Your task to perform on an android device: turn on location history Image 0: 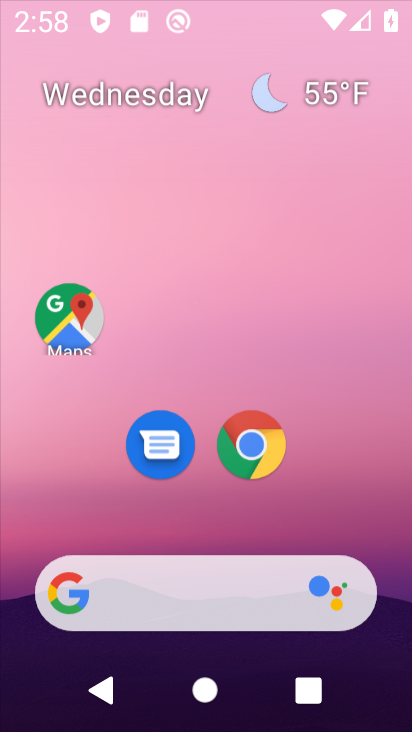
Step 0: click (57, 343)
Your task to perform on an android device: turn on location history Image 1: 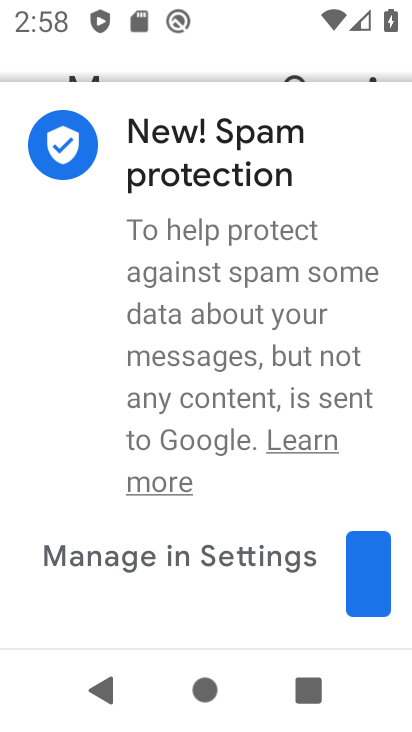
Step 1: press back button
Your task to perform on an android device: turn on location history Image 2: 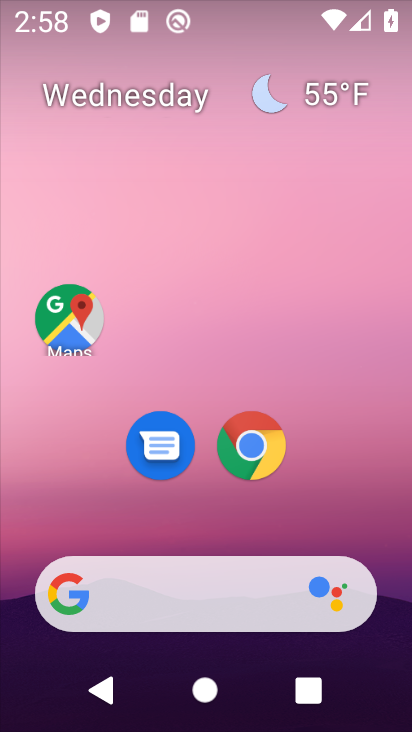
Step 2: click (98, 302)
Your task to perform on an android device: turn on location history Image 3: 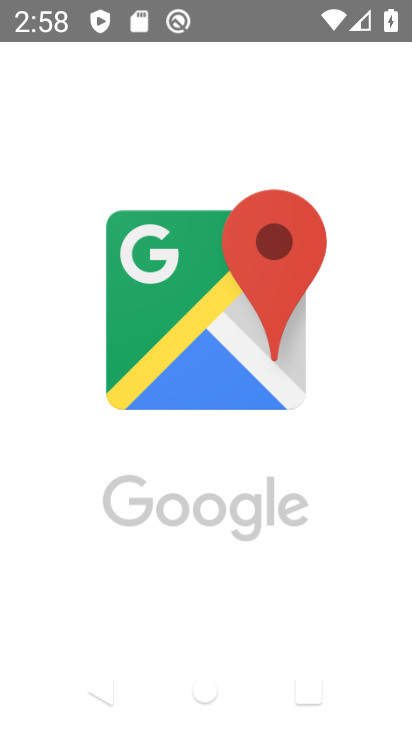
Step 3: press home button
Your task to perform on an android device: turn on location history Image 4: 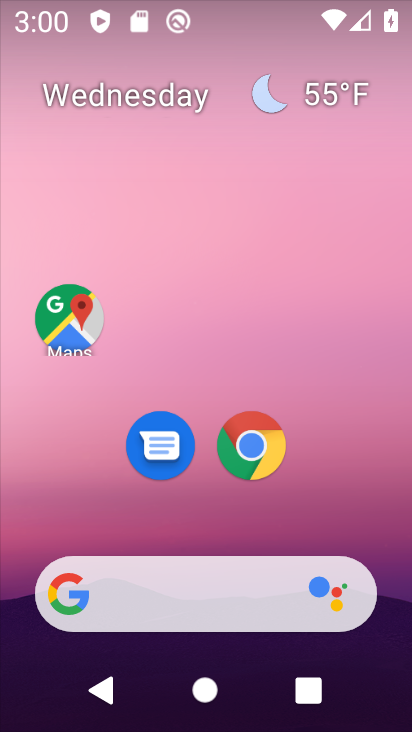
Step 4: drag from (162, 506) to (173, 380)
Your task to perform on an android device: turn on location history Image 5: 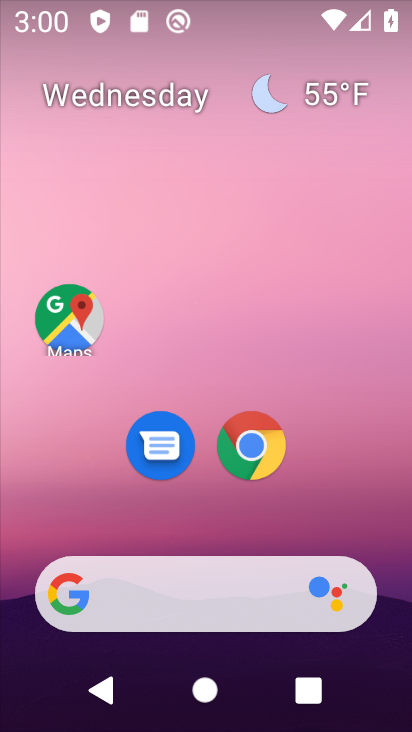
Step 5: drag from (287, 637) to (386, 223)
Your task to perform on an android device: turn on location history Image 6: 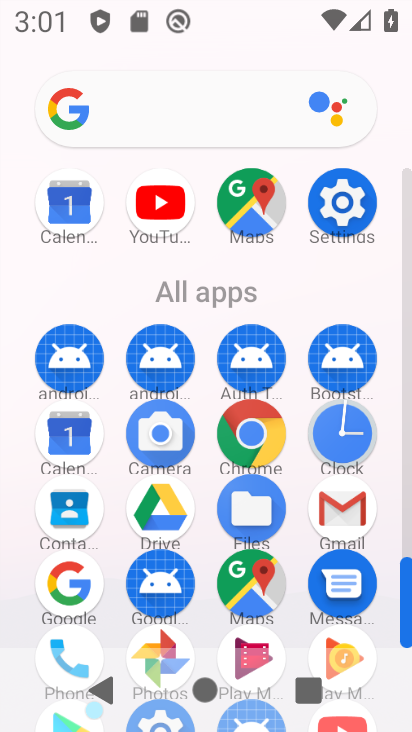
Step 6: click (332, 213)
Your task to perform on an android device: turn on location history Image 7: 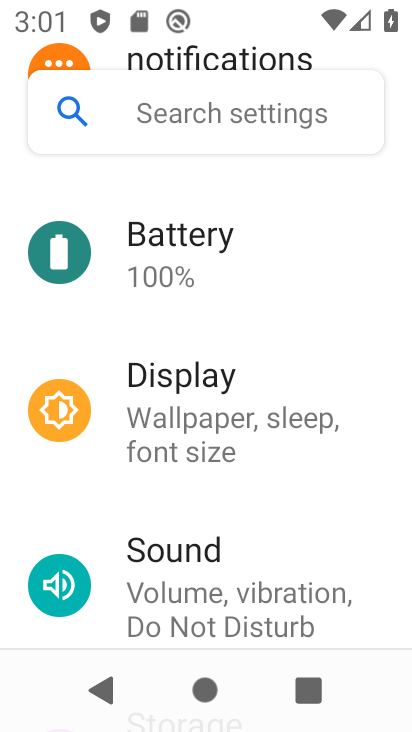
Step 7: drag from (202, 372) to (231, 64)
Your task to perform on an android device: turn on location history Image 8: 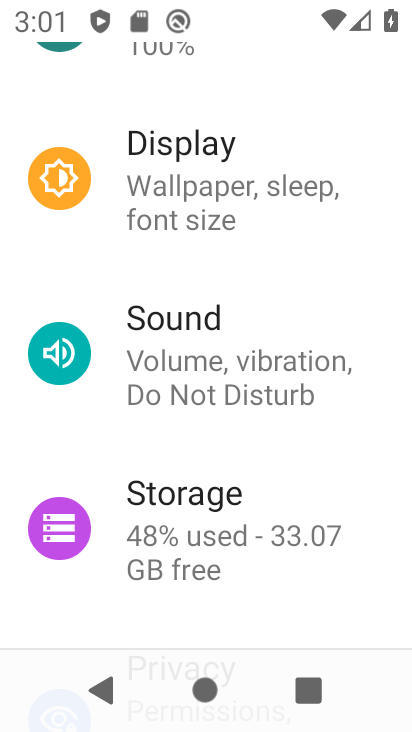
Step 8: drag from (288, 445) to (312, 199)
Your task to perform on an android device: turn on location history Image 9: 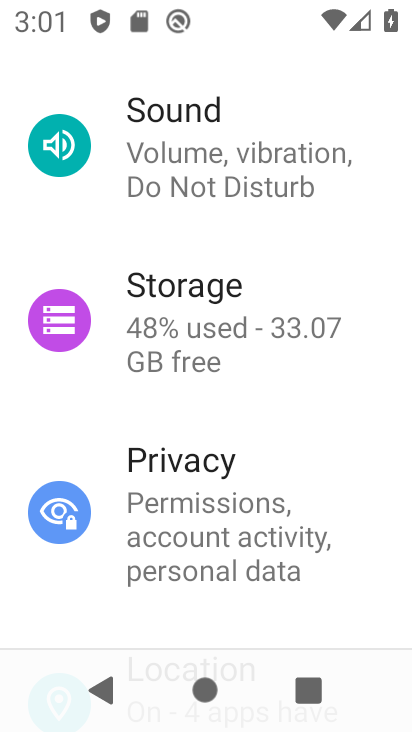
Step 9: drag from (339, 454) to (356, 272)
Your task to perform on an android device: turn on location history Image 10: 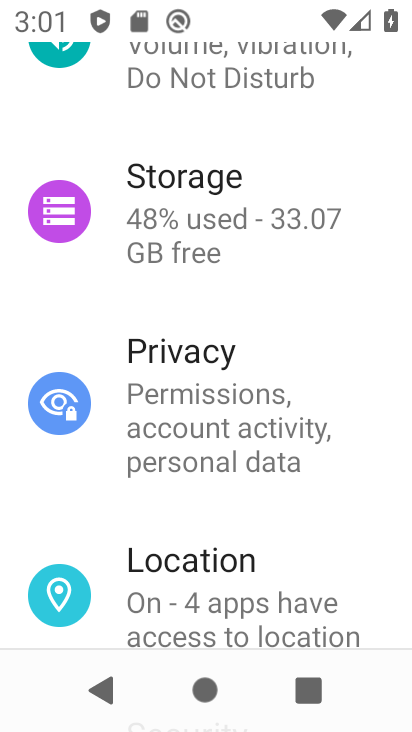
Step 10: click (166, 592)
Your task to perform on an android device: turn on location history Image 11: 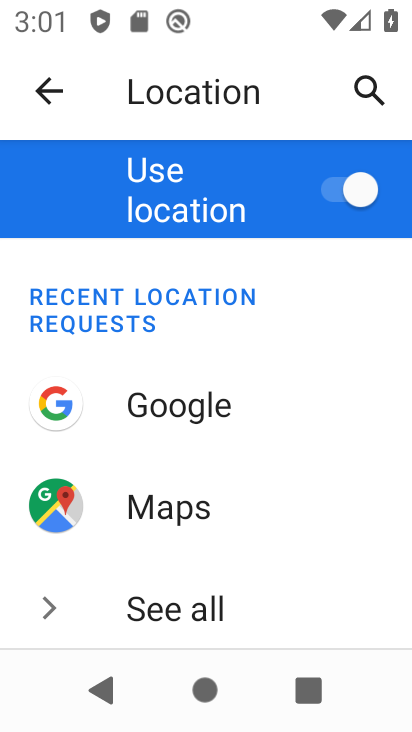
Step 11: drag from (328, 500) to (372, 150)
Your task to perform on an android device: turn on location history Image 12: 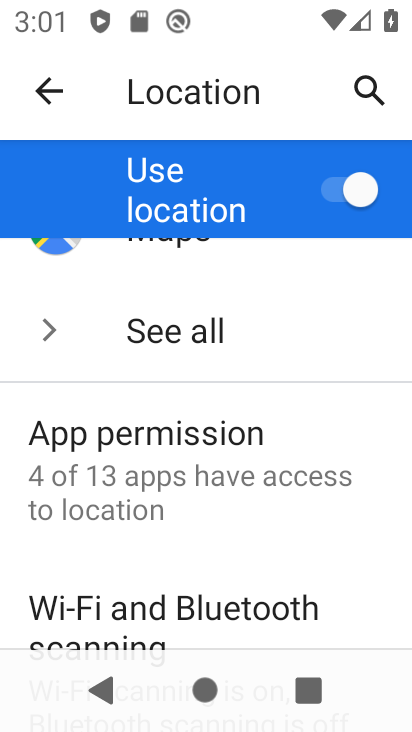
Step 12: drag from (242, 455) to (317, 123)
Your task to perform on an android device: turn on location history Image 13: 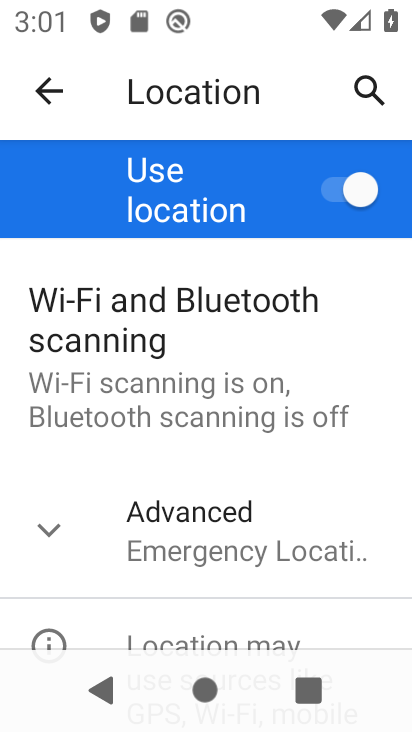
Step 13: click (230, 505)
Your task to perform on an android device: turn on location history Image 14: 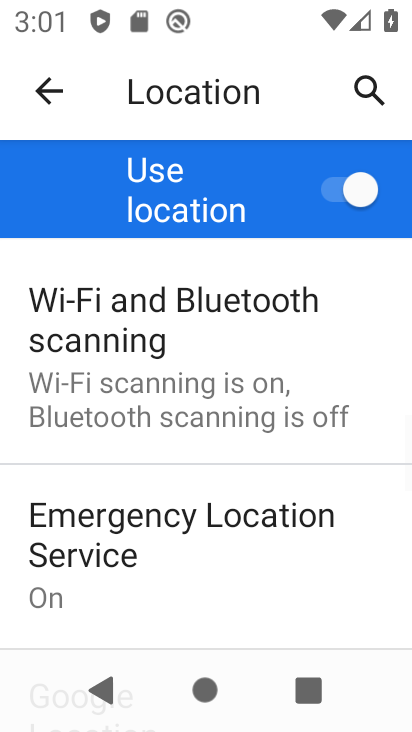
Step 14: drag from (271, 628) to (318, 260)
Your task to perform on an android device: turn on location history Image 15: 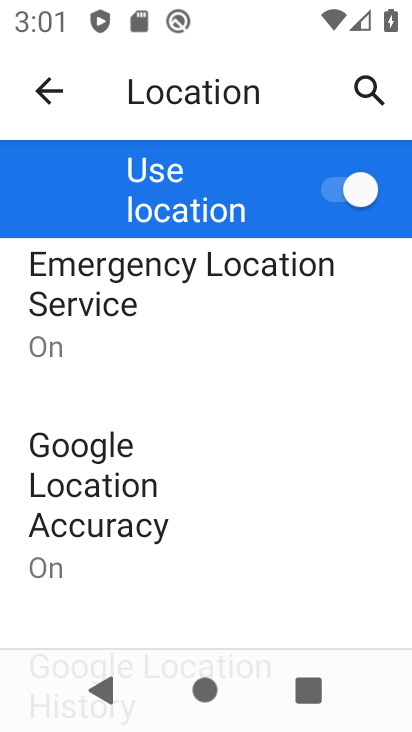
Step 15: drag from (304, 482) to (302, 425)
Your task to perform on an android device: turn on location history Image 16: 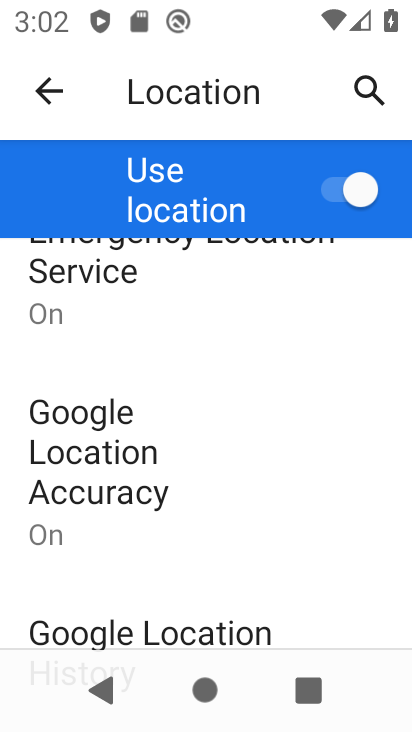
Step 16: click (272, 600)
Your task to perform on an android device: turn on location history Image 17: 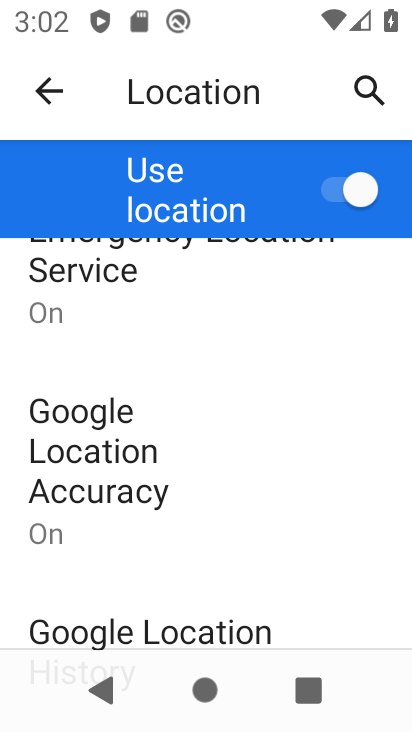
Step 17: drag from (284, 399) to (306, 118)
Your task to perform on an android device: turn on location history Image 18: 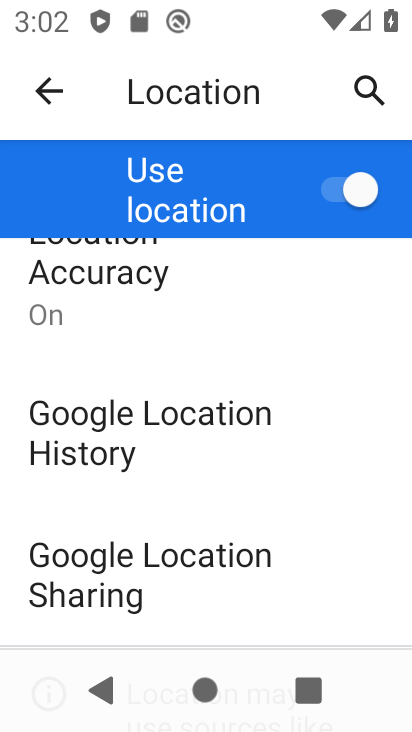
Step 18: click (176, 423)
Your task to perform on an android device: turn on location history Image 19: 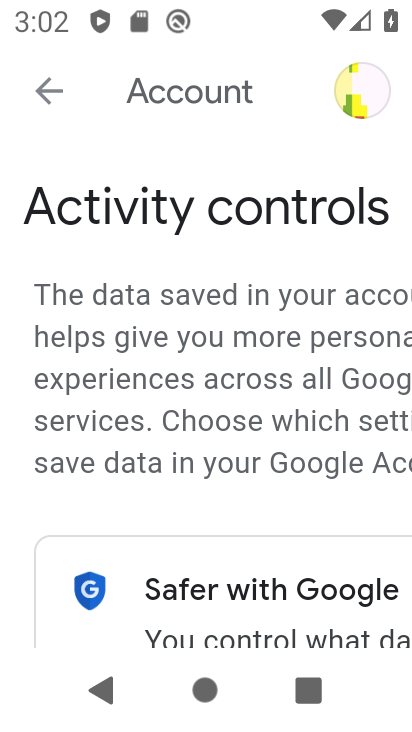
Step 19: drag from (294, 359) to (277, 159)
Your task to perform on an android device: turn on location history Image 20: 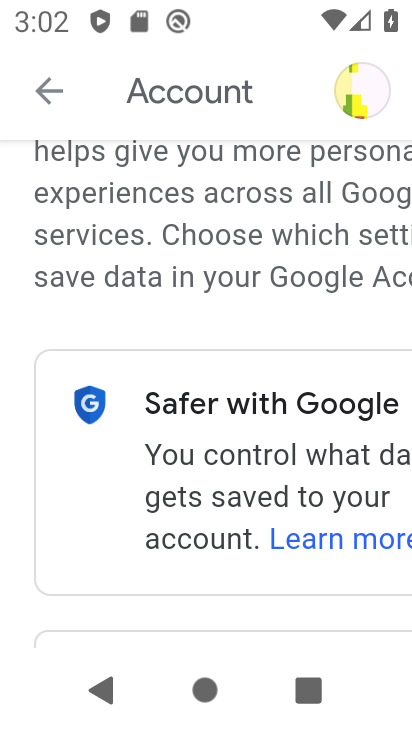
Step 20: drag from (182, 417) to (196, 64)
Your task to perform on an android device: turn on location history Image 21: 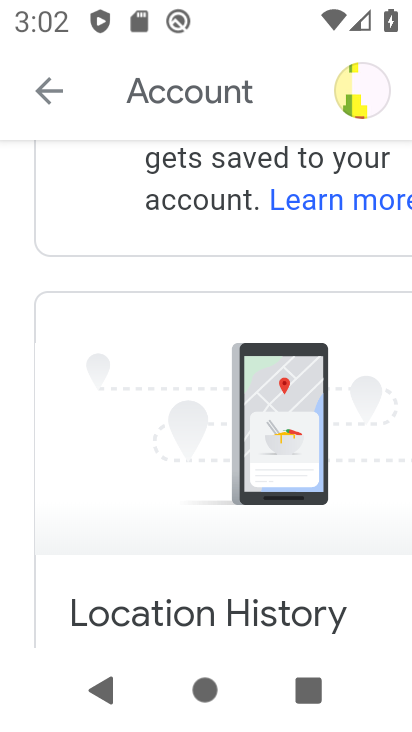
Step 21: drag from (98, 527) to (117, 295)
Your task to perform on an android device: turn on location history Image 22: 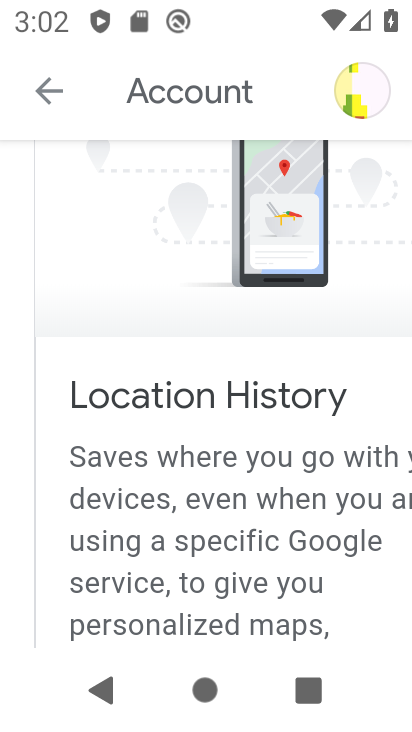
Step 22: drag from (129, 487) to (182, 168)
Your task to perform on an android device: turn on location history Image 23: 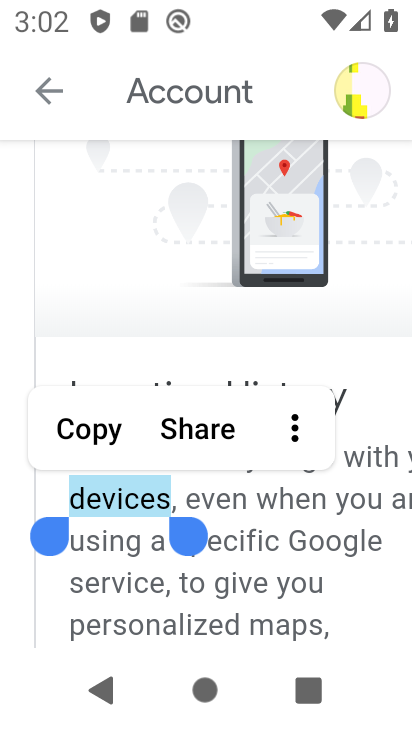
Step 23: click (256, 615)
Your task to perform on an android device: turn on location history Image 24: 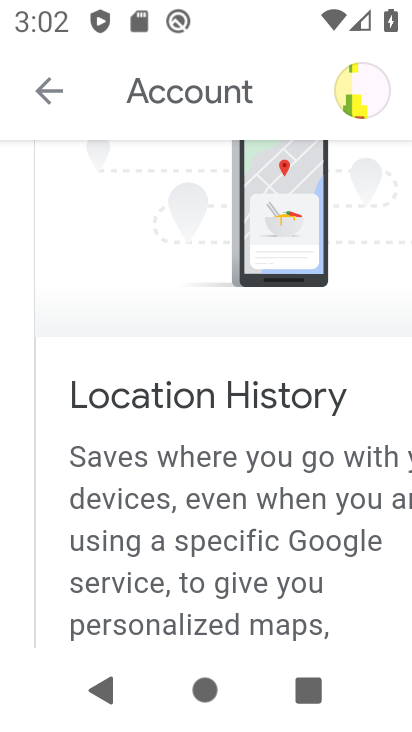
Step 24: drag from (256, 615) to (335, 289)
Your task to perform on an android device: turn on location history Image 25: 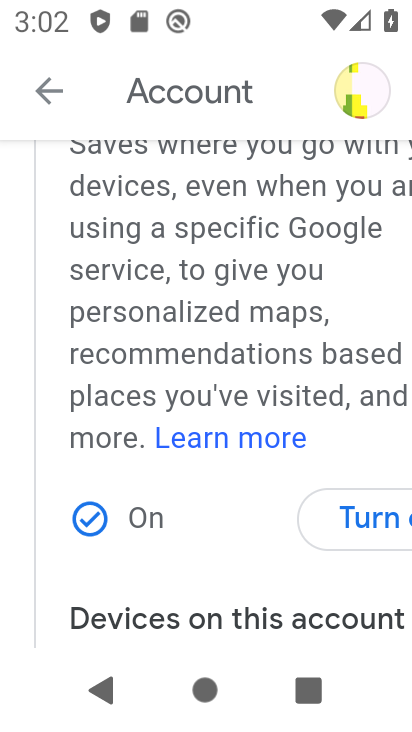
Step 25: click (81, 530)
Your task to perform on an android device: turn on location history Image 26: 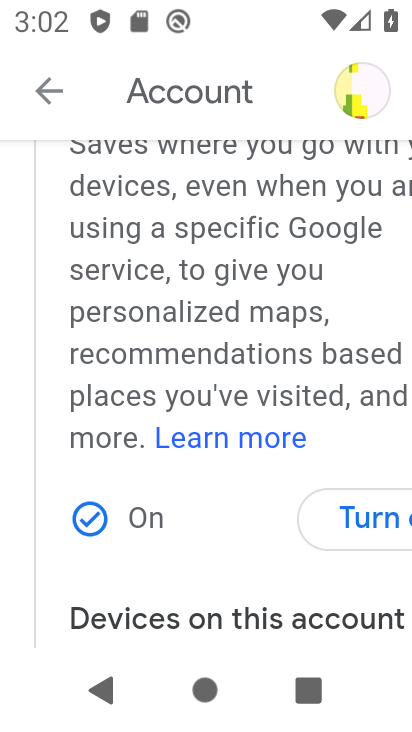
Step 26: click (81, 530)
Your task to perform on an android device: turn on location history Image 27: 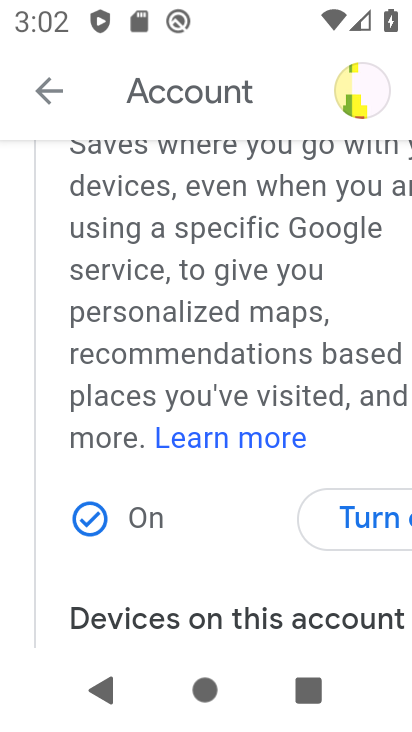
Step 27: click (81, 530)
Your task to perform on an android device: turn on location history Image 28: 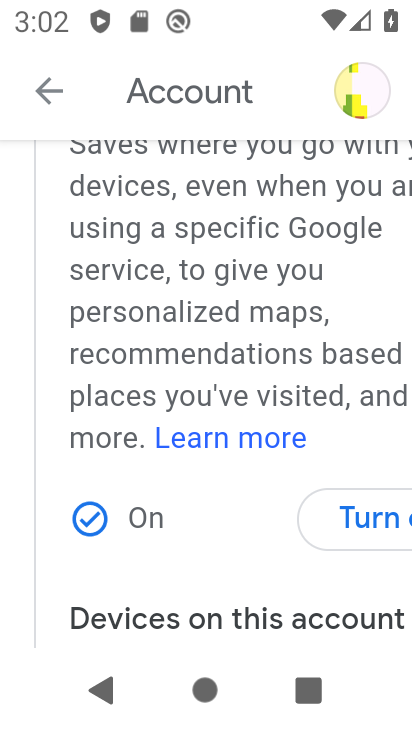
Step 28: click (81, 530)
Your task to perform on an android device: turn on location history Image 29: 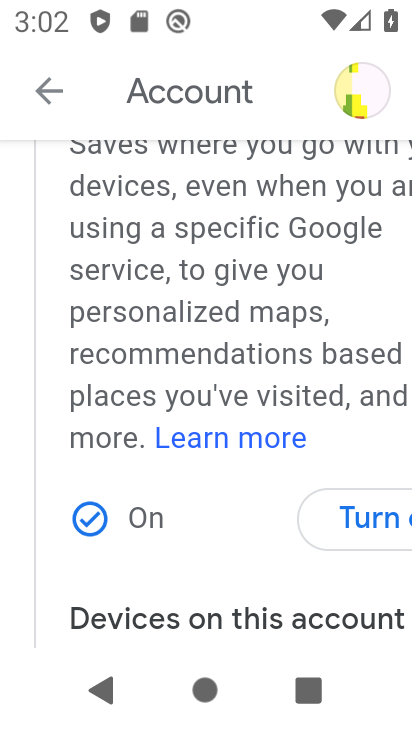
Step 29: task complete